Your task to perform on an android device: Do I have any events this weekend? Image 0: 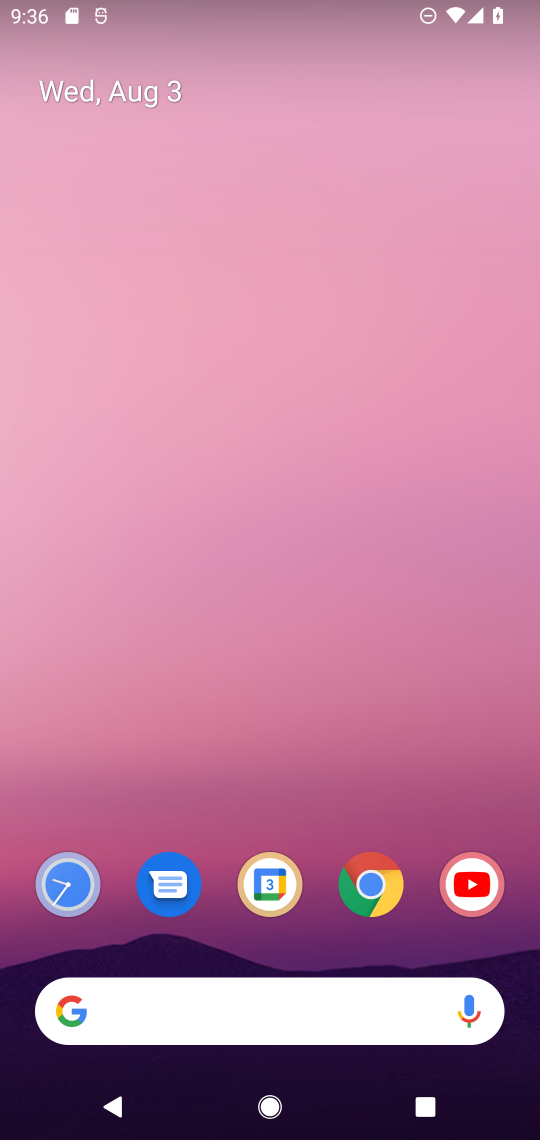
Step 0: drag from (17, 970) to (295, 142)
Your task to perform on an android device: Do I have any events this weekend? Image 1: 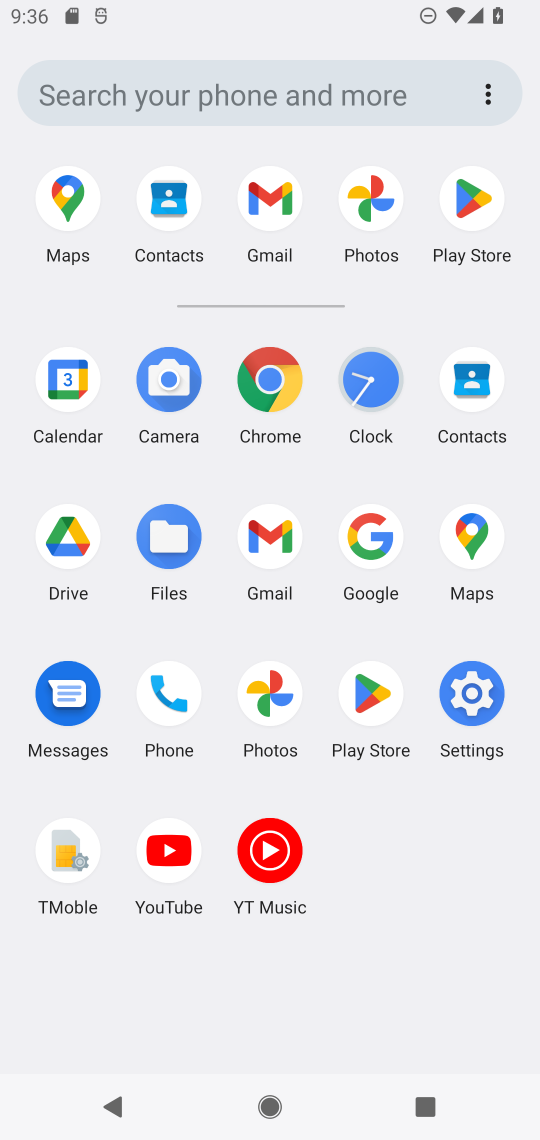
Step 1: click (18, 386)
Your task to perform on an android device: Do I have any events this weekend? Image 2: 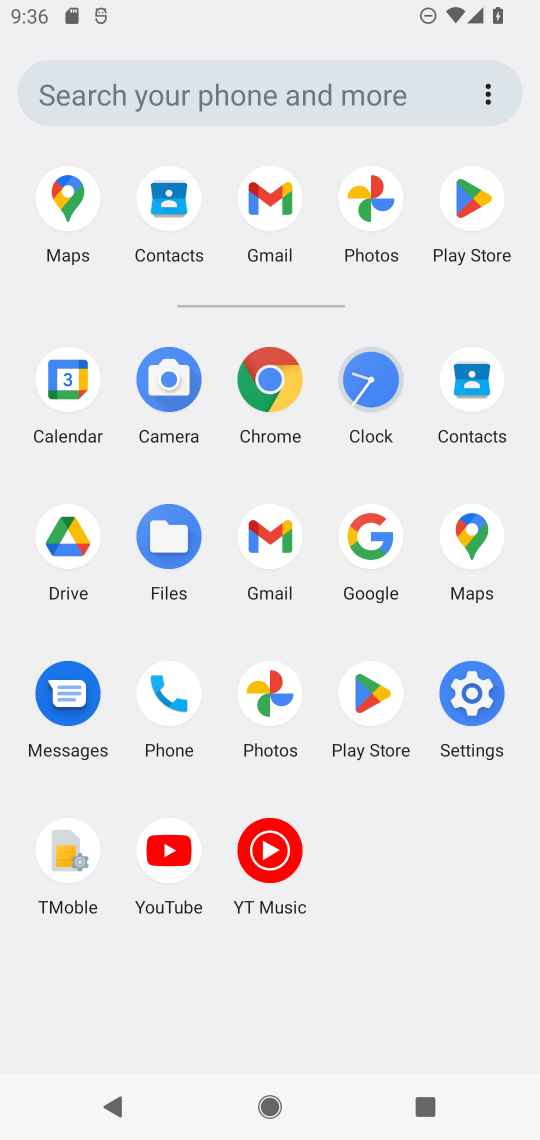
Step 2: click (49, 382)
Your task to perform on an android device: Do I have any events this weekend? Image 3: 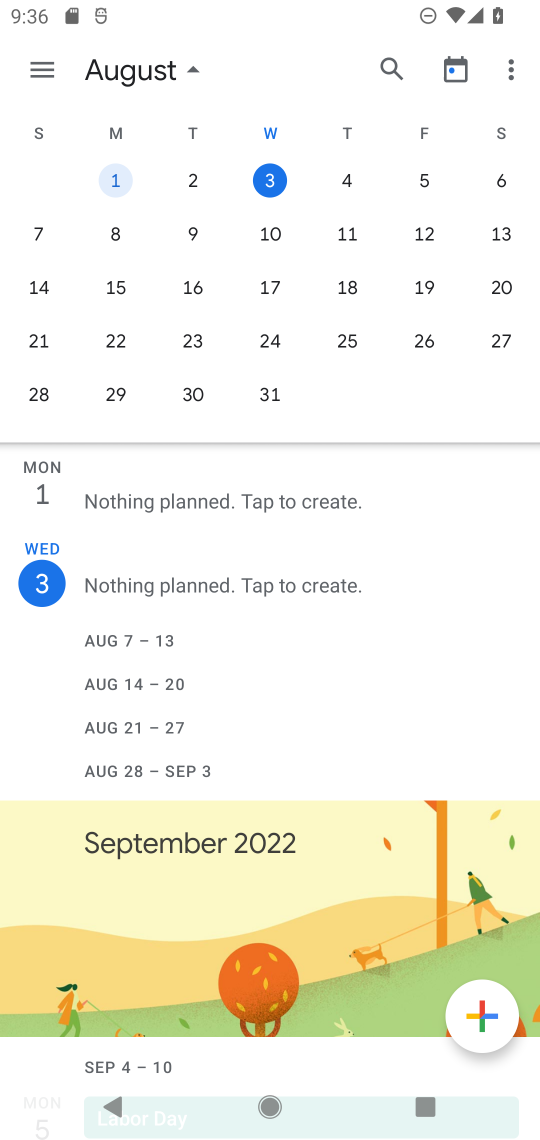
Step 3: task complete